Your task to perform on an android device: Search for the best rated headphones on amazon.com Image 0: 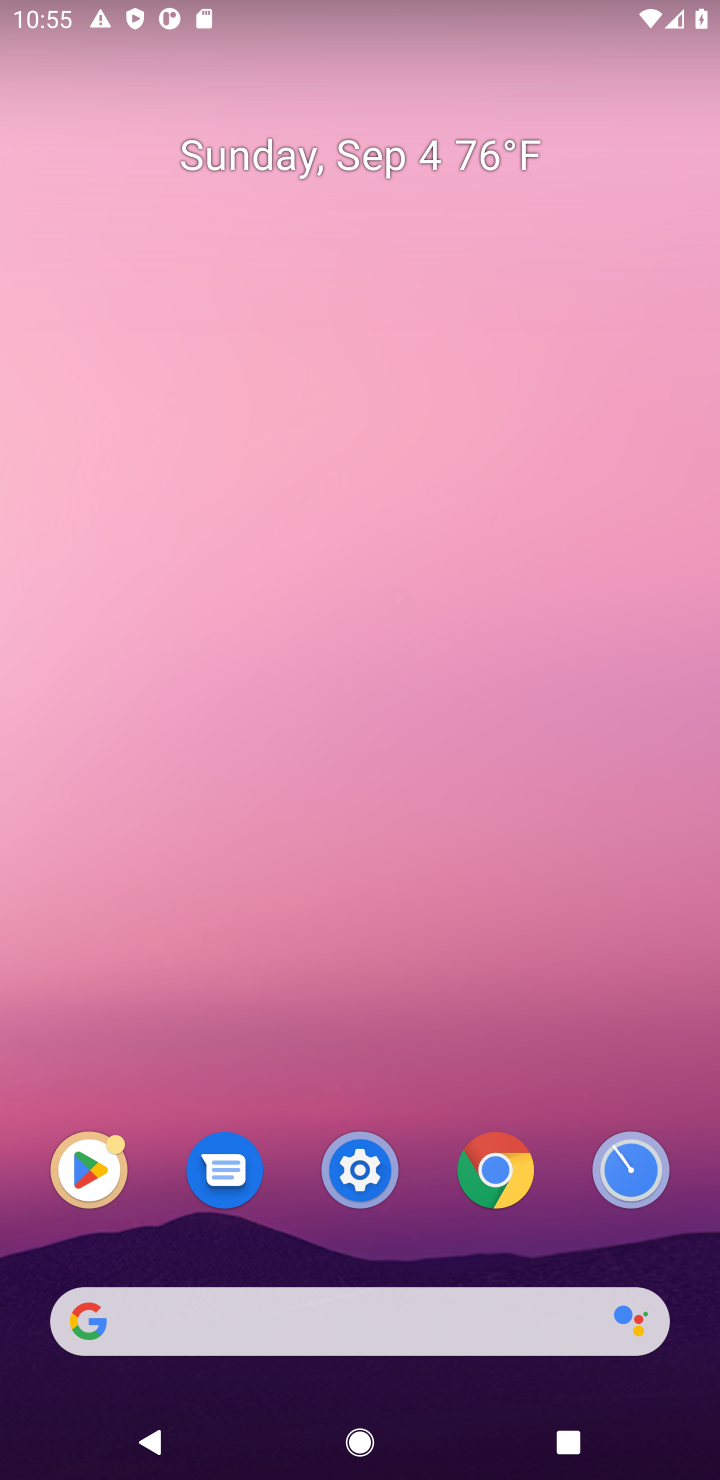
Step 0: click (459, 1305)
Your task to perform on an android device: Search for the best rated headphones on amazon.com Image 1: 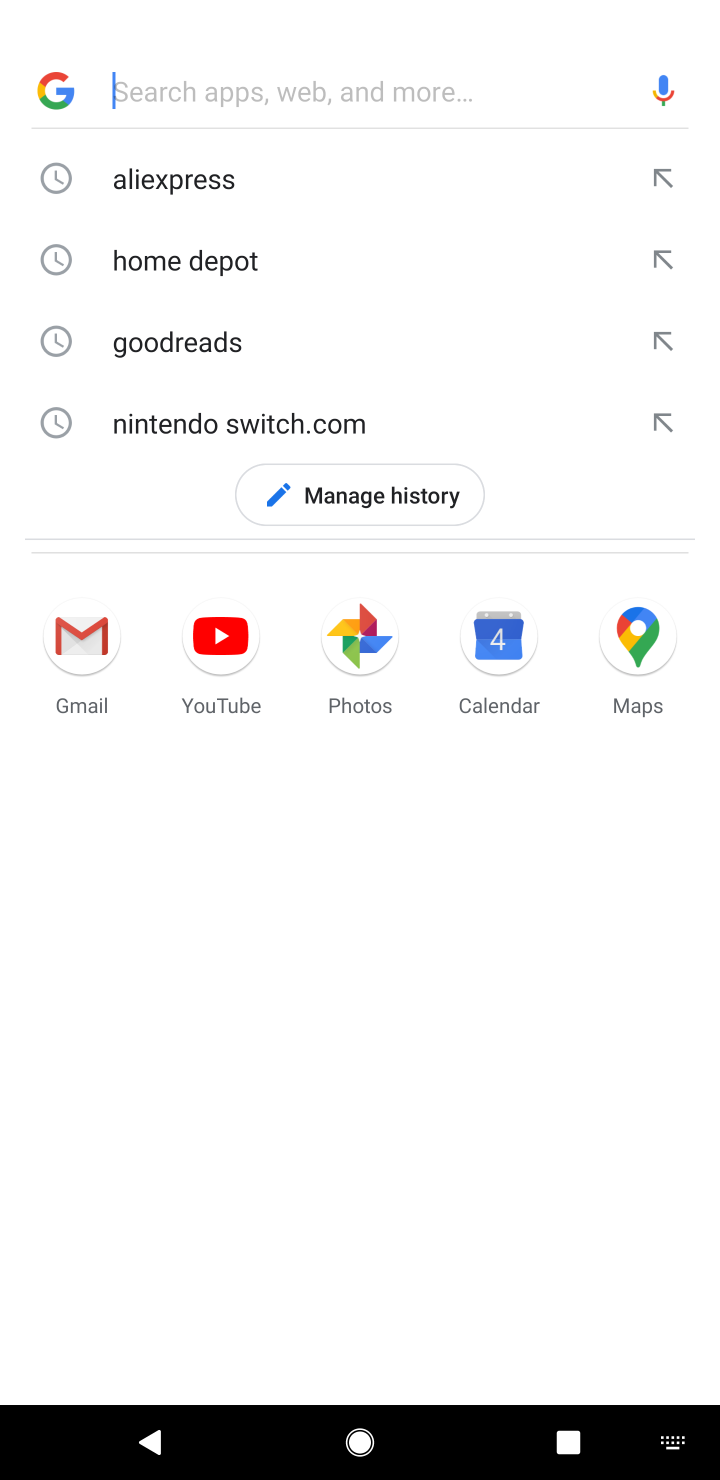
Step 1: type "amazon.com"
Your task to perform on an android device: Search for the best rated headphones on amazon.com Image 2: 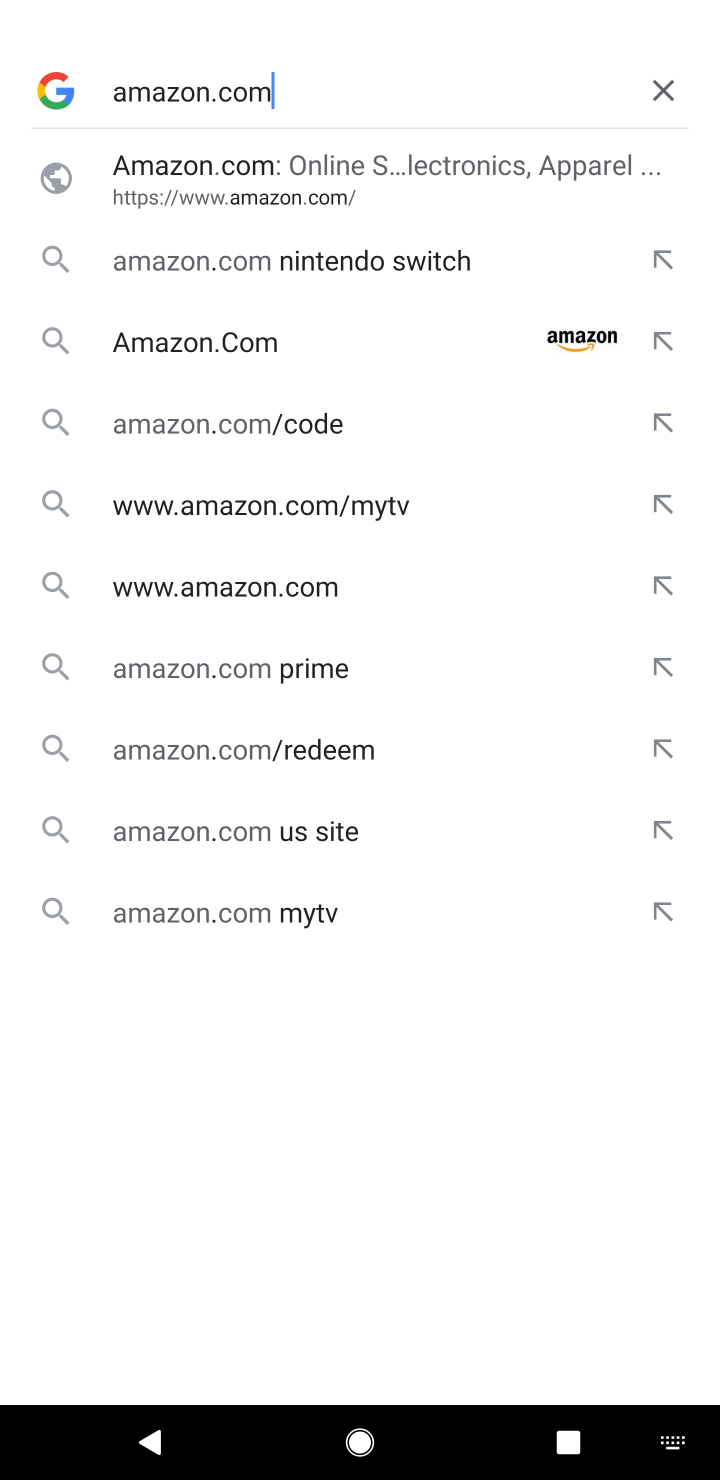
Step 2: click (306, 156)
Your task to perform on an android device: Search for the best rated headphones on amazon.com Image 3: 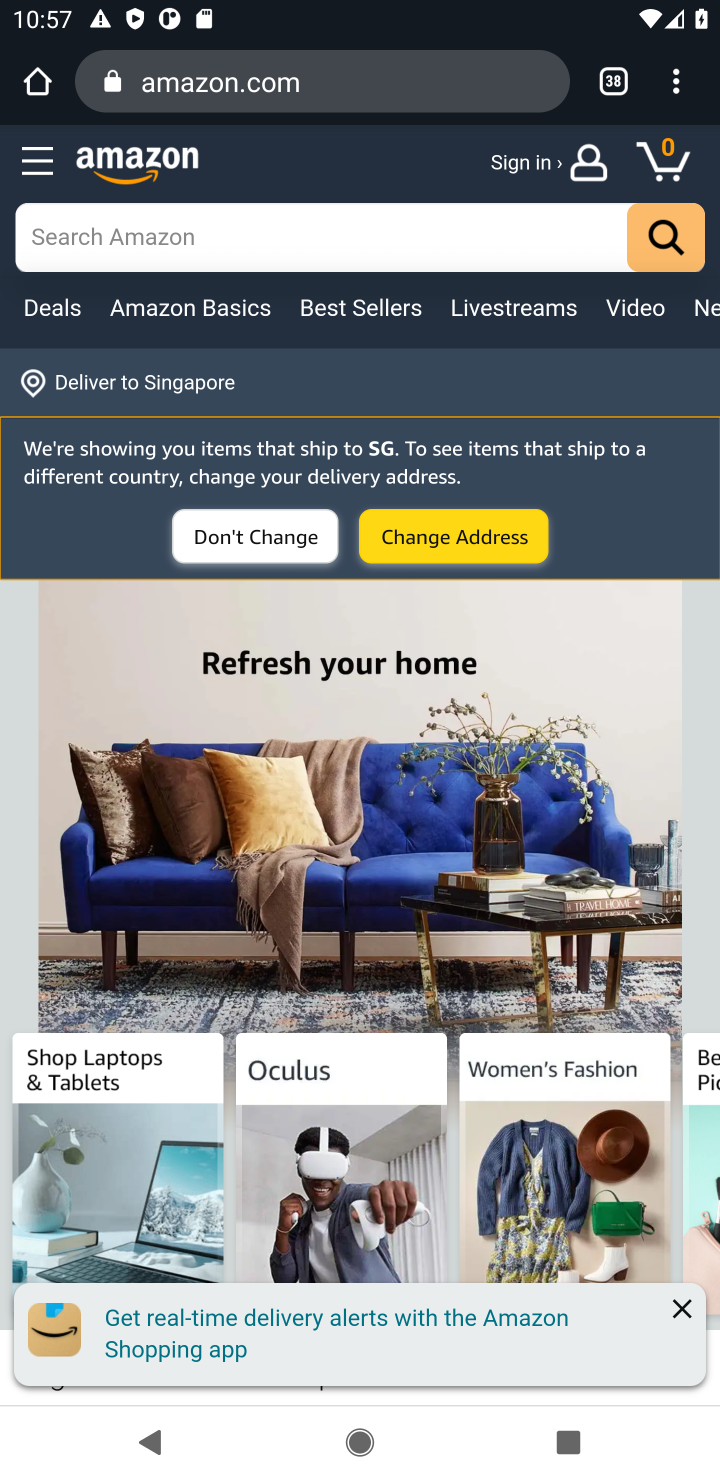
Step 3: type "headphones"
Your task to perform on an android device: Search for the best rated headphones on amazon.com Image 4: 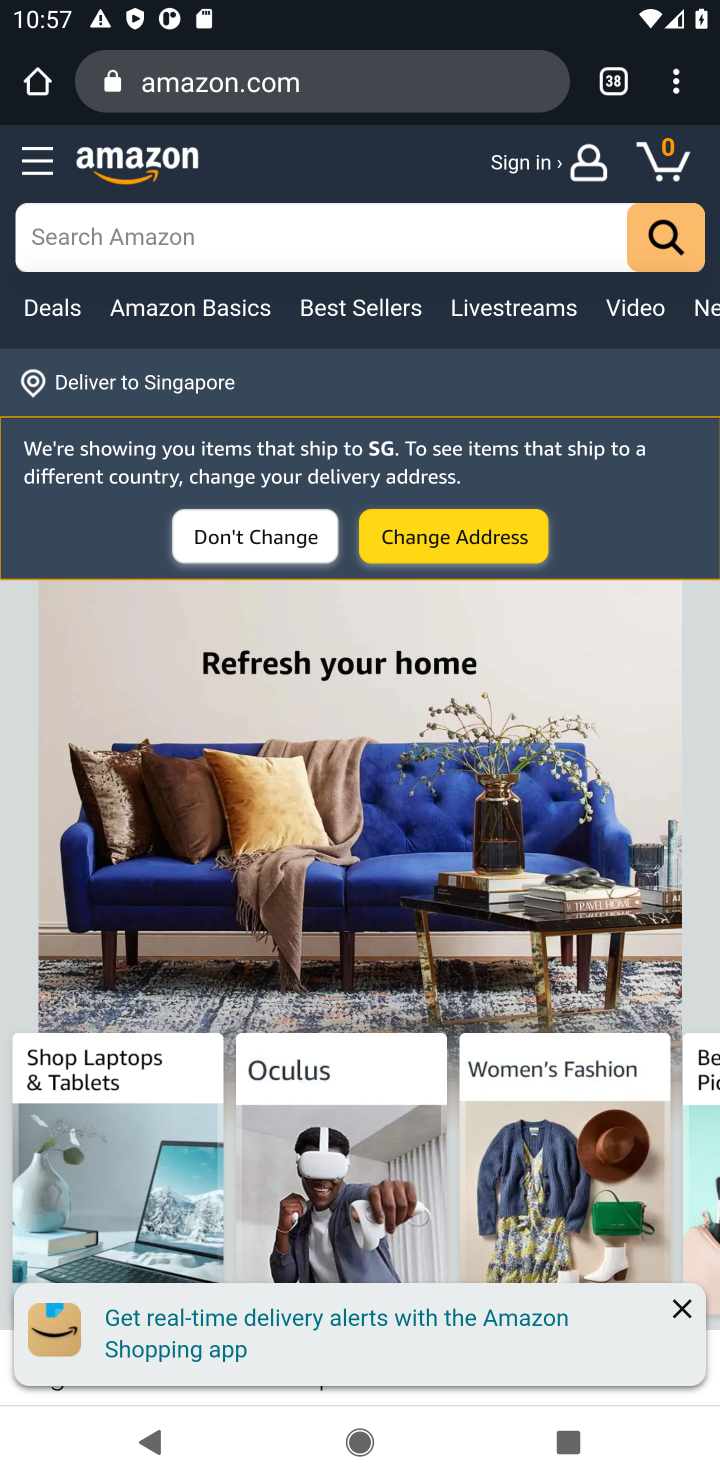
Step 4: click (313, 259)
Your task to perform on an android device: Search for the best rated headphones on amazon.com Image 5: 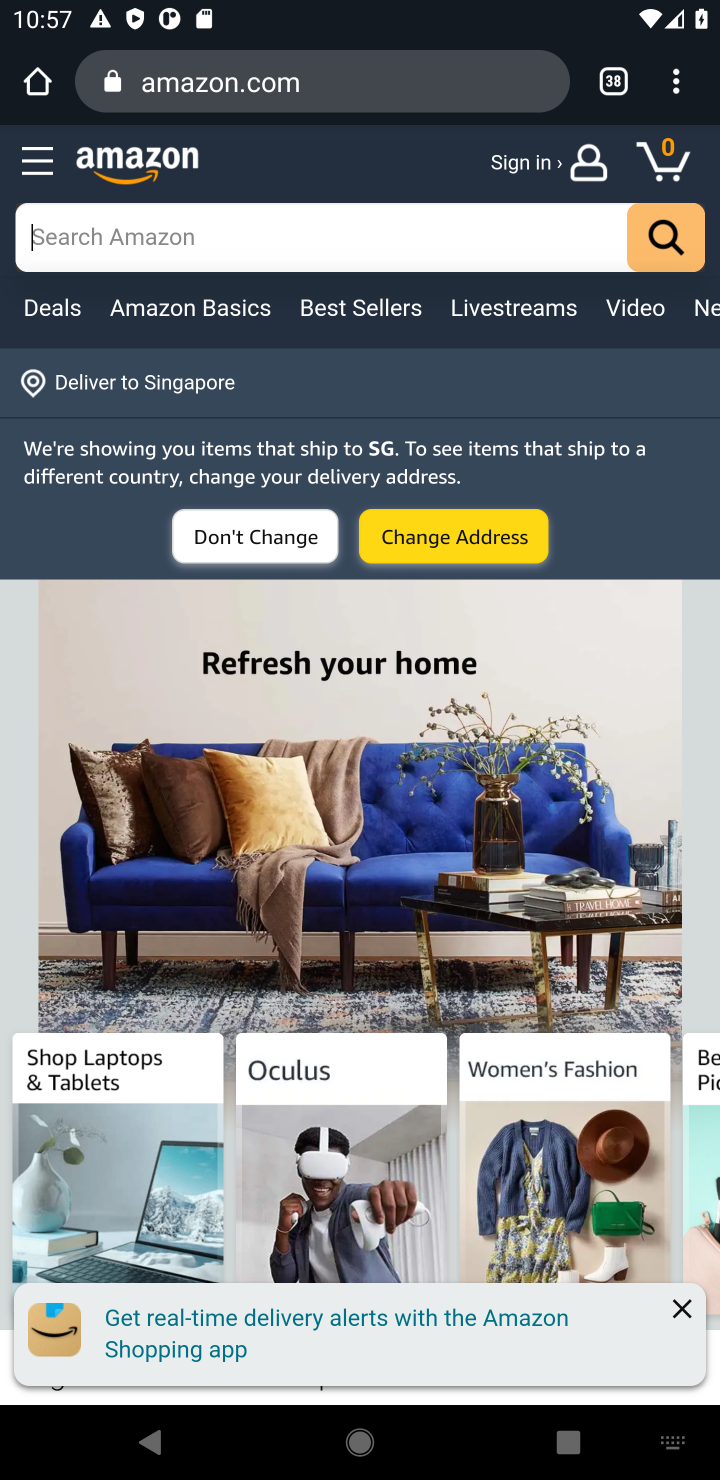
Step 5: type "headphones"
Your task to perform on an android device: Search for the best rated headphones on amazon.com Image 6: 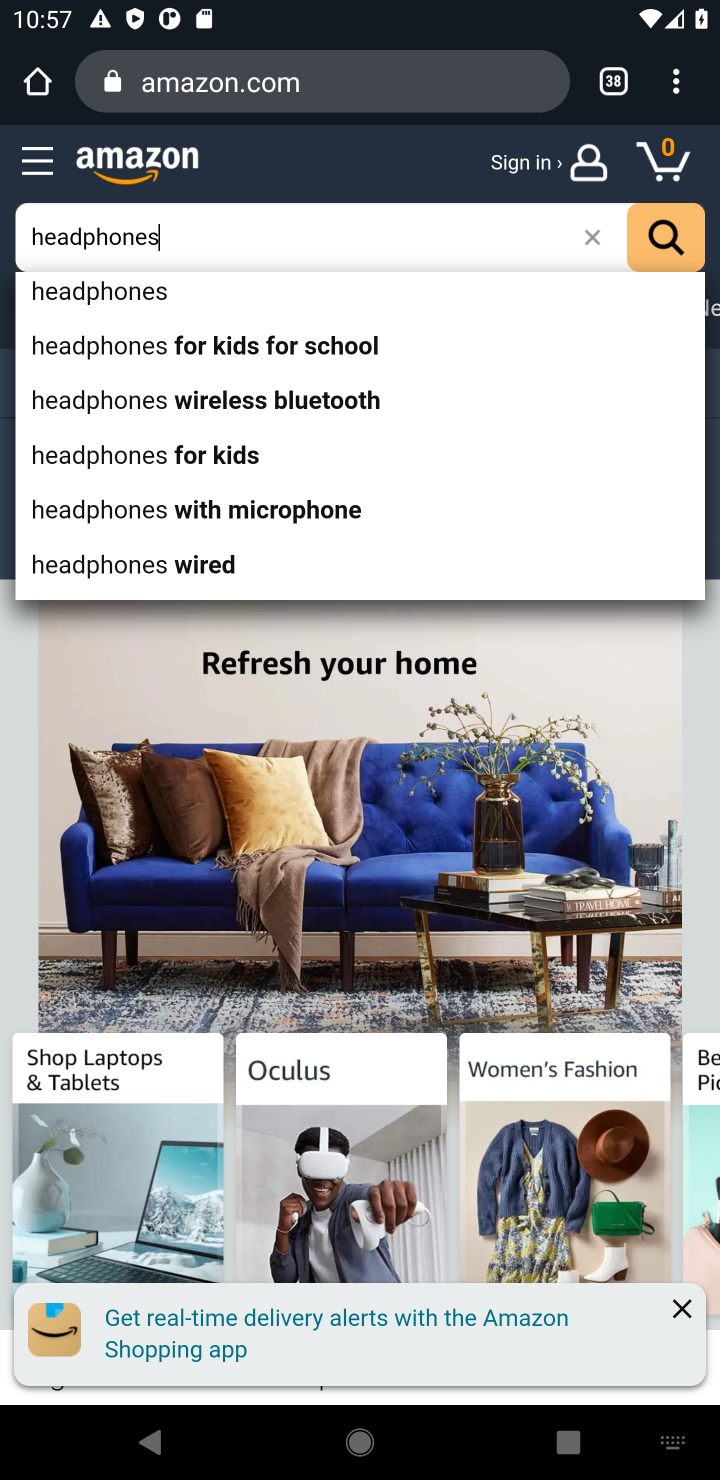
Step 6: click (102, 302)
Your task to perform on an android device: Search for the best rated headphones on amazon.com Image 7: 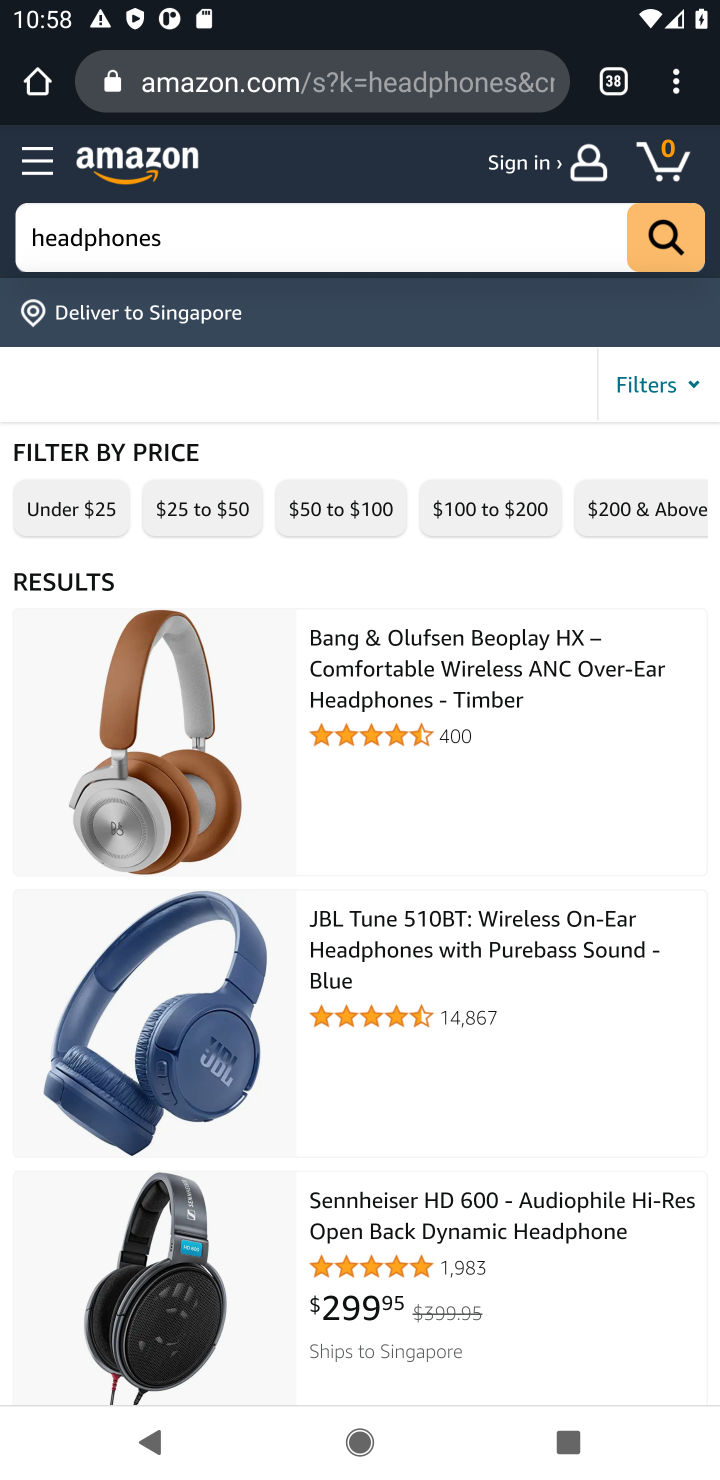
Step 7: task complete